Your task to perform on an android device: open a new tab in the chrome app Image 0: 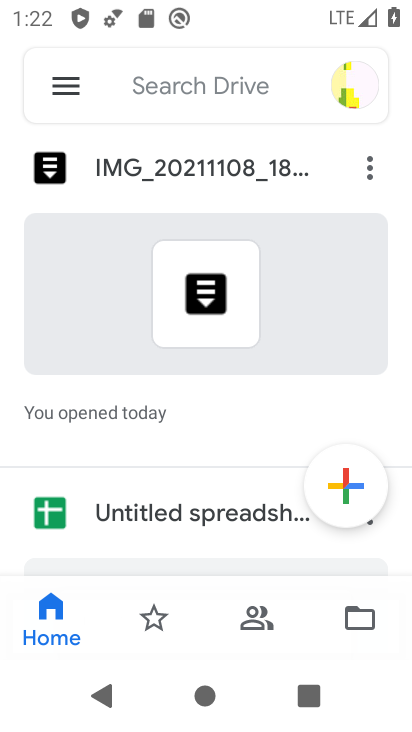
Step 0: press home button
Your task to perform on an android device: open a new tab in the chrome app Image 1: 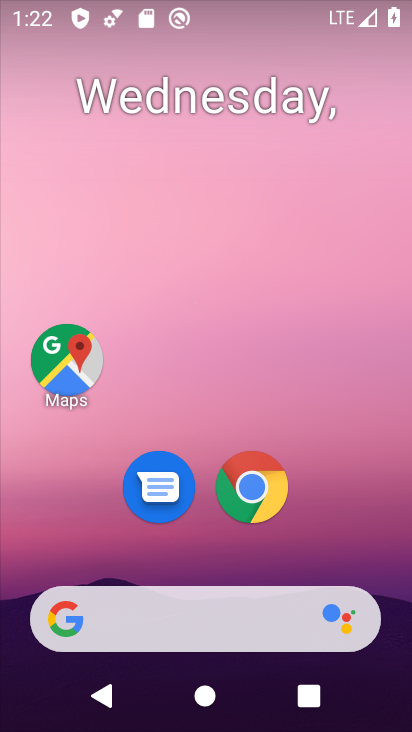
Step 1: click (279, 478)
Your task to perform on an android device: open a new tab in the chrome app Image 2: 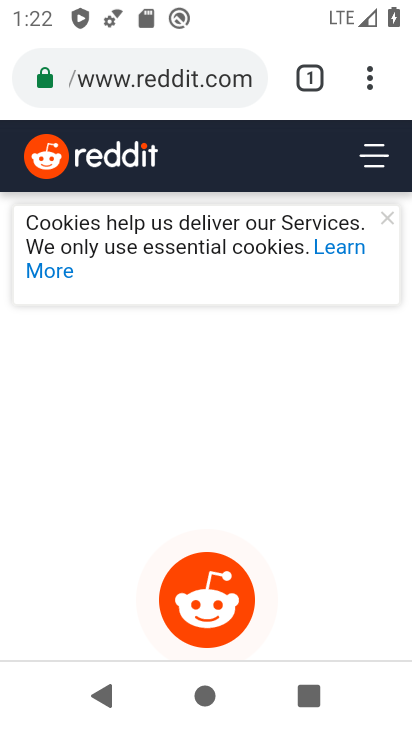
Step 2: task complete